Your task to perform on an android device: Search for vegetarian restaurants on Maps Image 0: 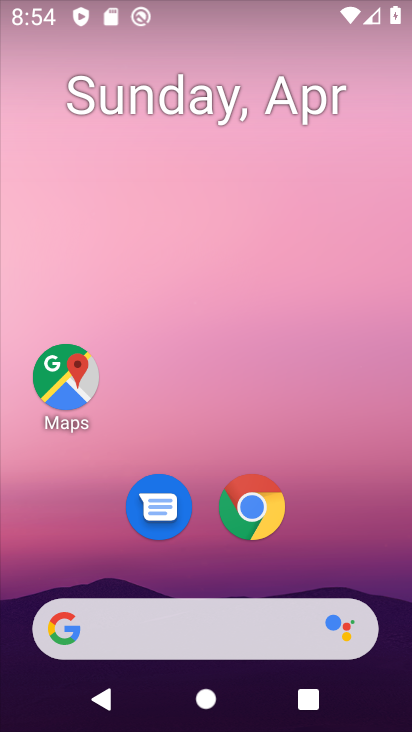
Step 0: drag from (236, 671) to (344, 126)
Your task to perform on an android device: Search for vegetarian restaurants on Maps Image 1: 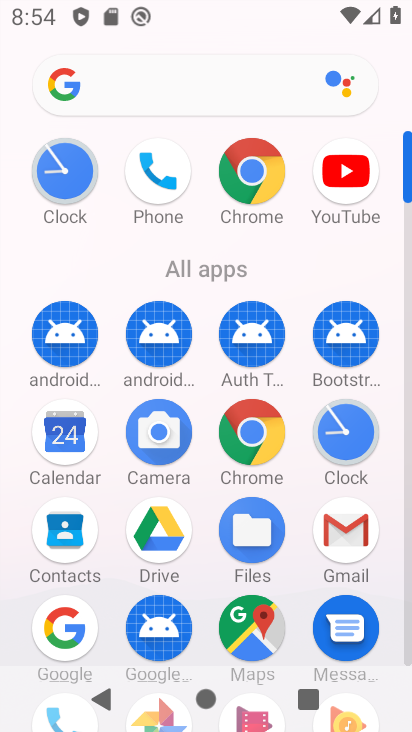
Step 1: click (251, 623)
Your task to perform on an android device: Search for vegetarian restaurants on Maps Image 2: 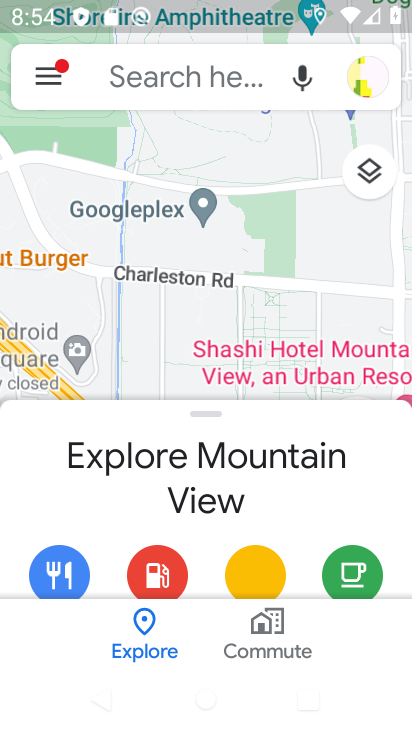
Step 2: click (221, 81)
Your task to perform on an android device: Search for vegetarian restaurants on Maps Image 3: 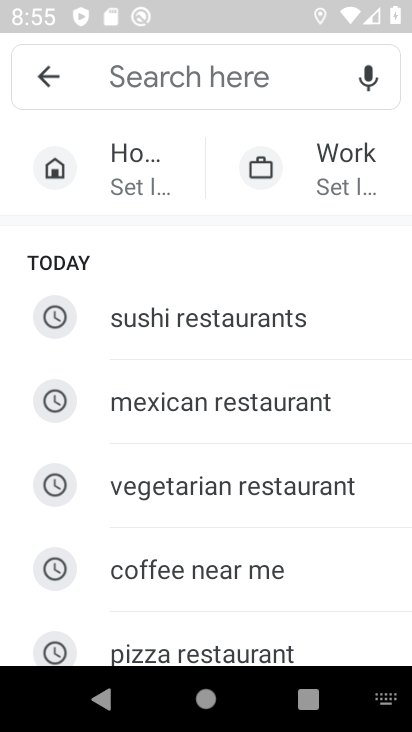
Step 3: click (300, 480)
Your task to perform on an android device: Search for vegetarian restaurants on Maps Image 4: 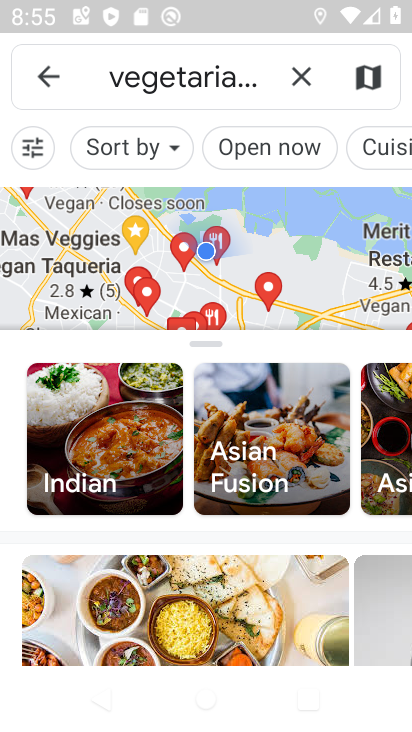
Step 4: task complete